Your task to perform on an android device: Go to Android settings Image 0: 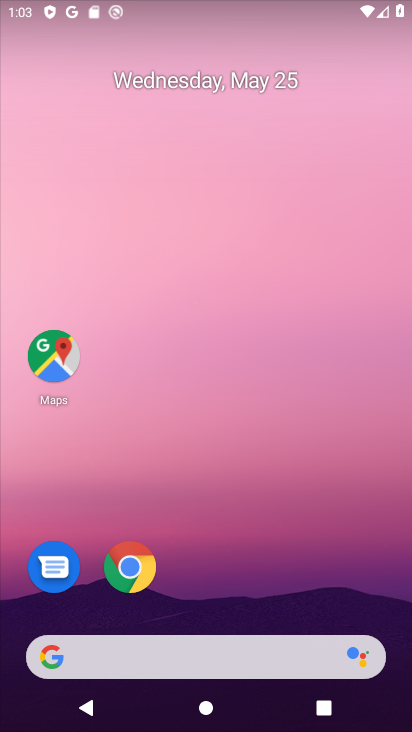
Step 0: drag from (268, 600) to (246, 219)
Your task to perform on an android device: Go to Android settings Image 1: 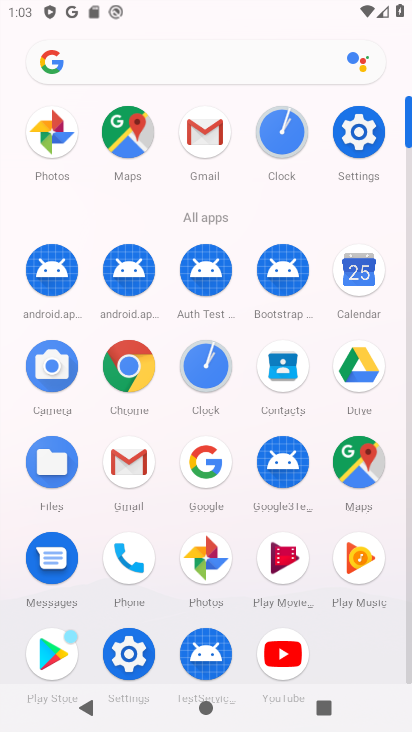
Step 1: click (357, 119)
Your task to perform on an android device: Go to Android settings Image 2: 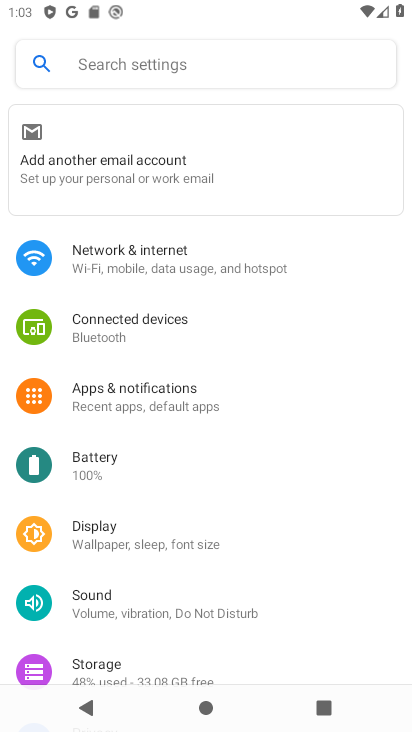
Step 2: drag from (167, 585) to (171, 134)
Your task to perform on an android device: Go to Android settings Image 3: 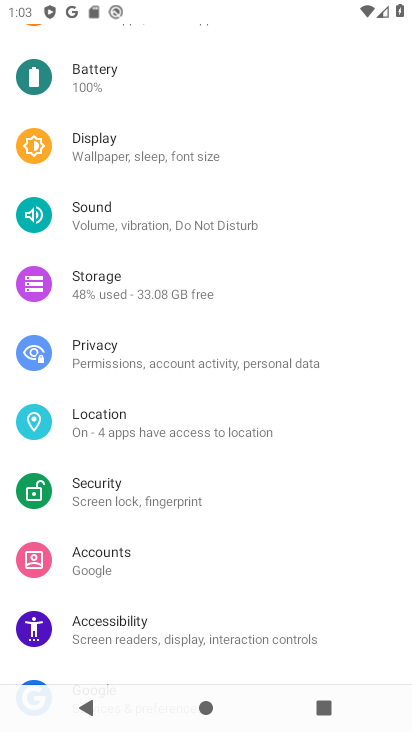
Step 3: drag from (114, 611) to (118, 320)
Your task to perform on an android device: Go to Android settings Image 4: 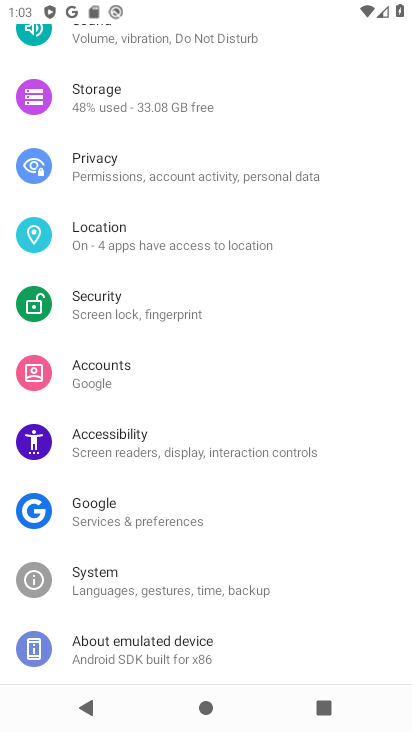
Step 4: click (122, 583)
Your task to perform on an android device: Go to Android settings Image 5: 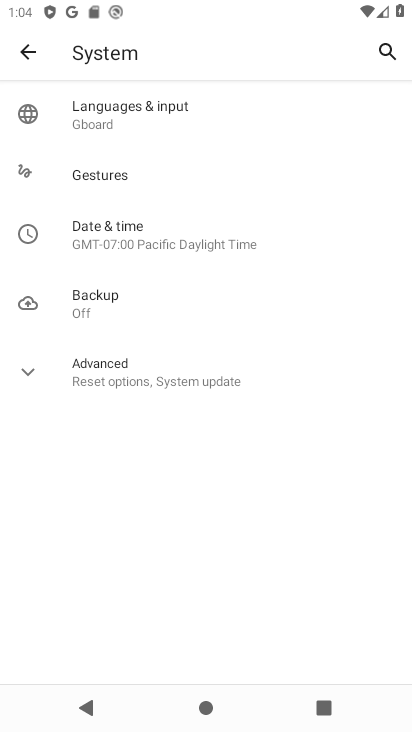
Step 5: task complete